Your task to perform on an android device: remove spam from my inbox in the gmail app Image 0: 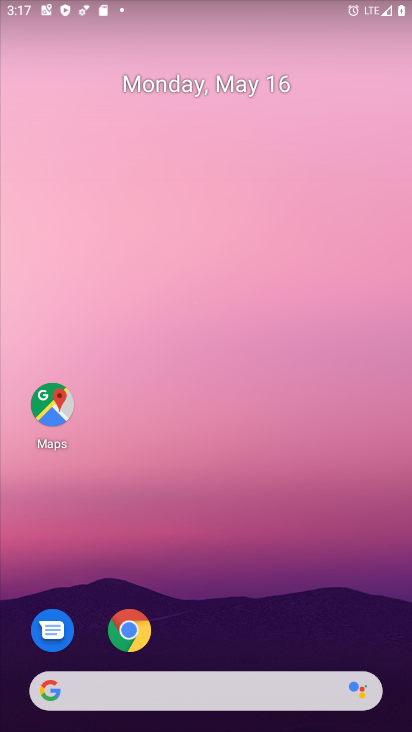
Step 0: drag from (216, 649) to (296, 56)
Your task to perform on an android device: remove spam from my inbox in the gmail app Image 1: 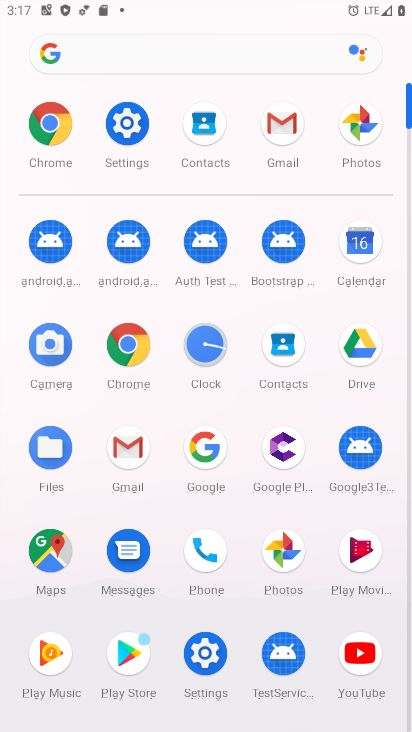
Step 1: click (283, 132)
Your task to perform on an android device: remove spam from my inbox in the gmail app Image 2: 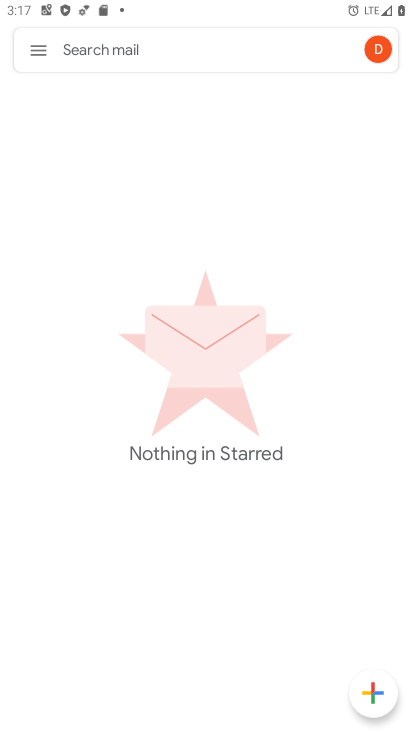
Step 2: click (41, 45)
Your task to perform on an android device: remove spam from my inbox in the gmail app Image 3: 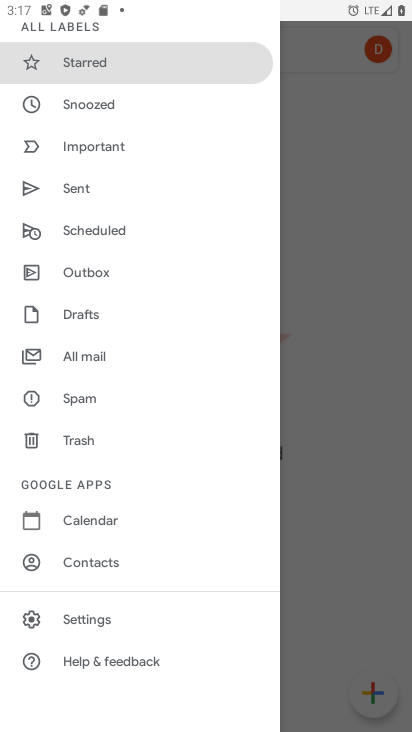
Step 3: click (98, 401)
Your task to perform on an android device: remove spam from my inbox in the gmail app Image 4: 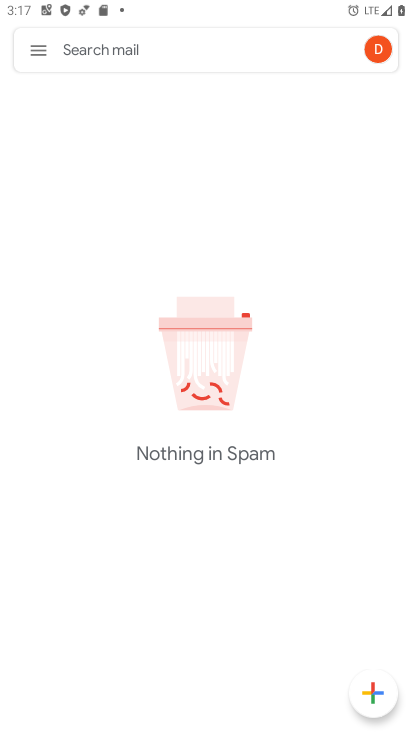
Step 4: task complete